Your task to perform on an android device: turn off improve location accuracy Image 0: 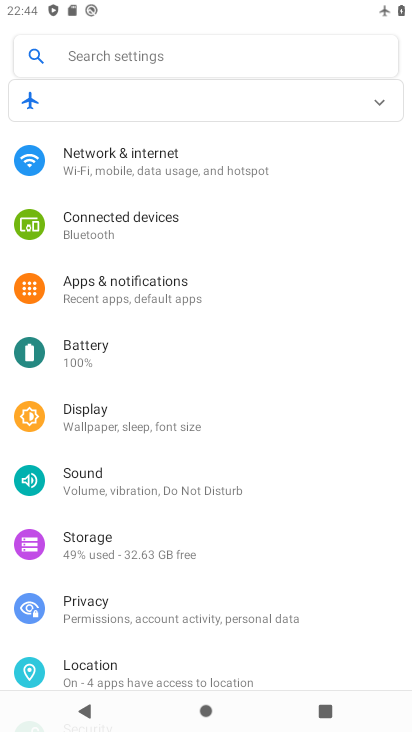
Step 0: drag from (168, 499) to (208, 138)
Your task to perform on an android device: turn off improve location accuracy Image 1: 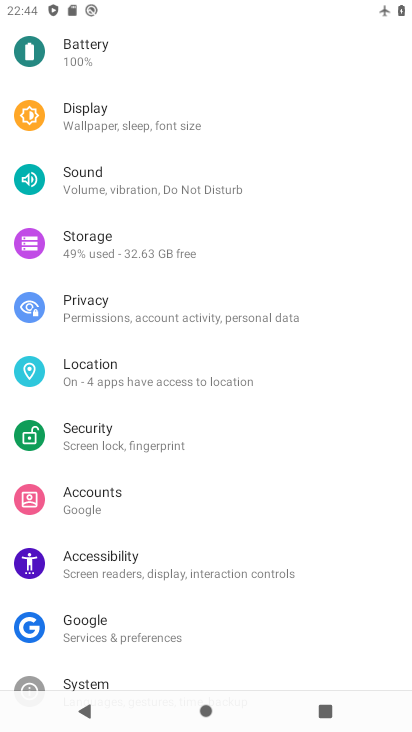
Step 1: click (125, 386)
Your task to perform on an android device: turn off improve location accuracy Image 2: 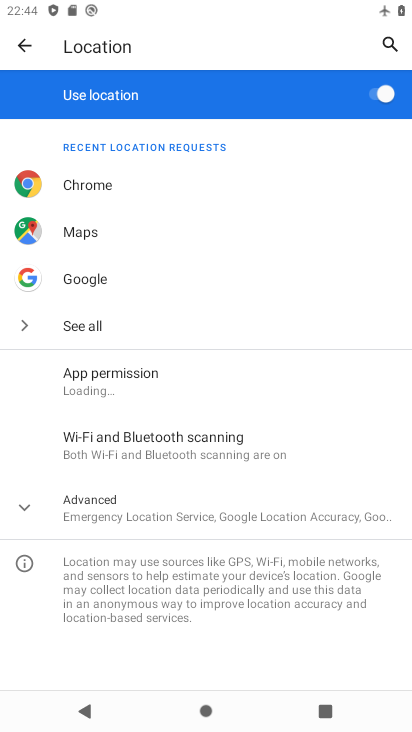
Step 2: click (103, 502)
Your task to perform on an android device: turn off improve location accuracy Image 3: 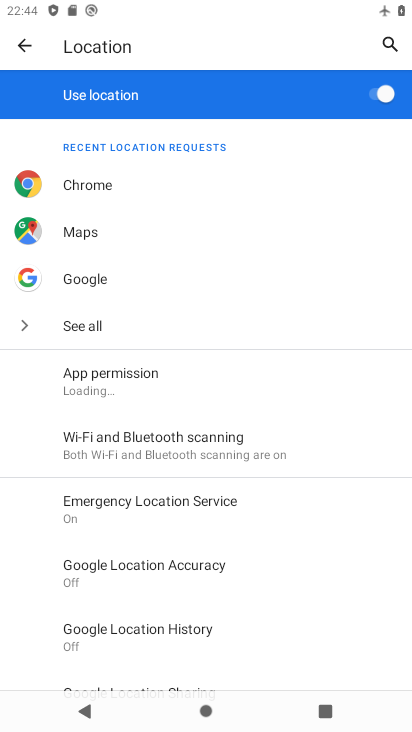
Step 3: click (161, 569)
Your task to perform on an android device: turn off improve location accuracy Image 4: 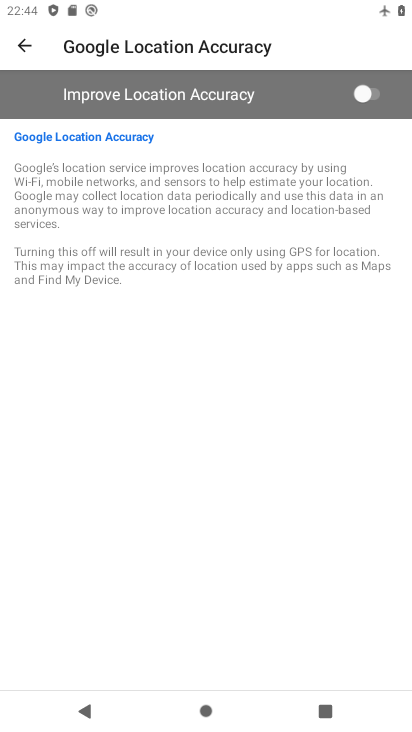
Step 4: task complete